Your task to perform on an android device: change text size in settings app Image 0: 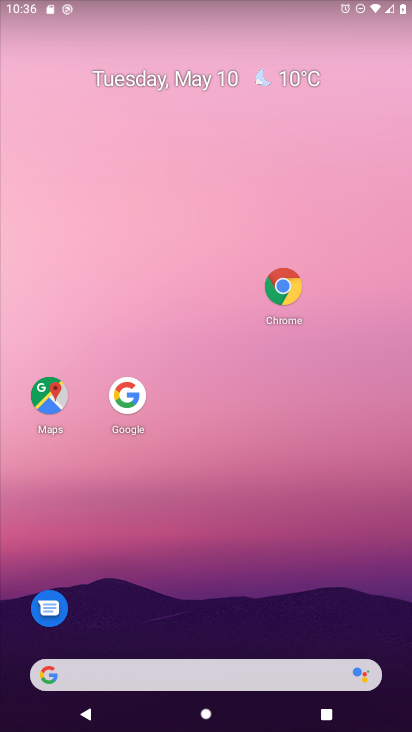
Step 0: drag from (151, 679) to (277, 187)
Your task to perform on an android device: change text size in settings app Image 1: 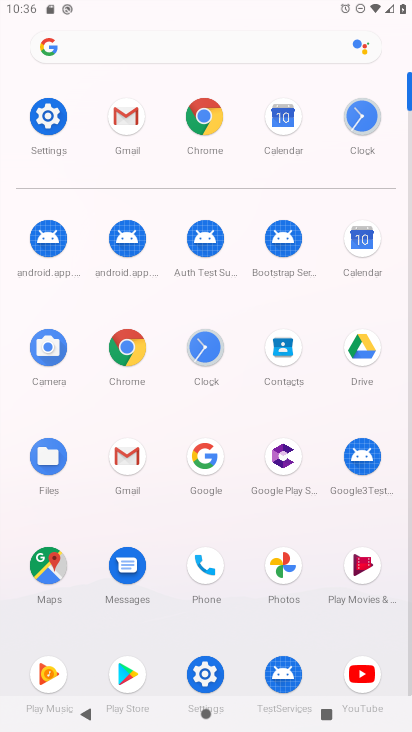
Step 1: click (52, 121)
Your task to perform on an android device: change text size in settings app Image 2: 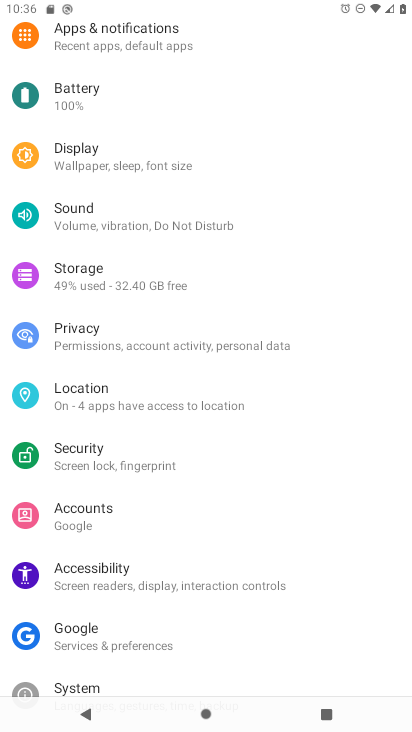
Step 2: click (135, 156)
Your task to perform on an android device: change text size in settings app Image 3: 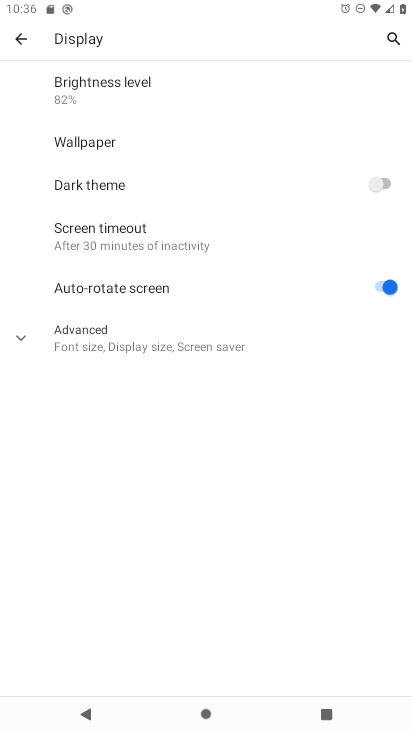
Step 3: click (72, 331)
Your task to perform on an android device: change text size in settings app Image 4: 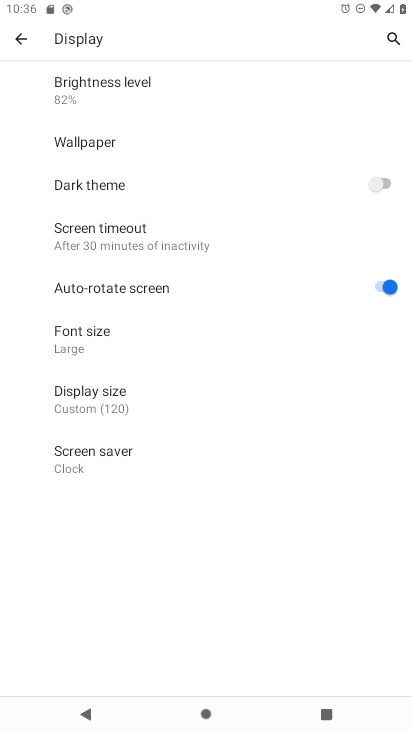
Step 4: click (96, 337)
Your task to perform on an android device: change text size in settings app Image 5: 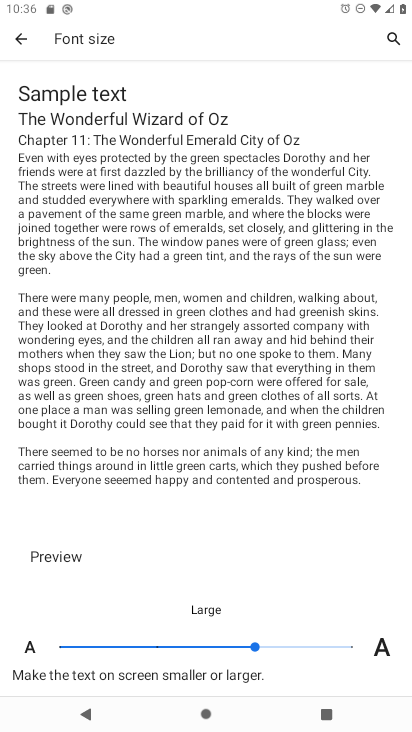
Step 5: click (351, 648)
Your task to perform on an android device: change text size in settings app Image 6: 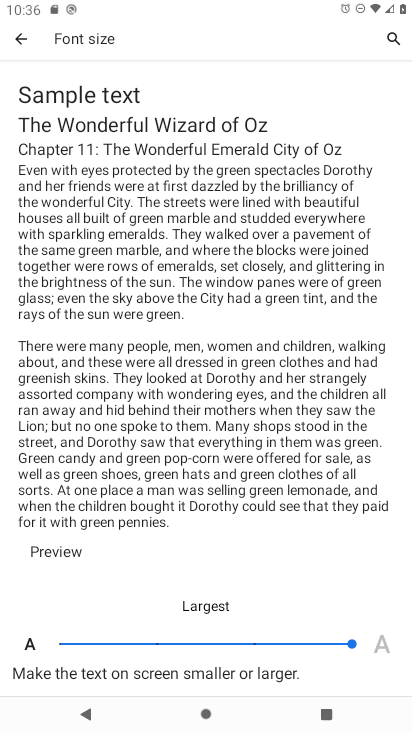
Step 6: task complete